Your task to perform on an android device: turn off translation in the chrome app Image 0: 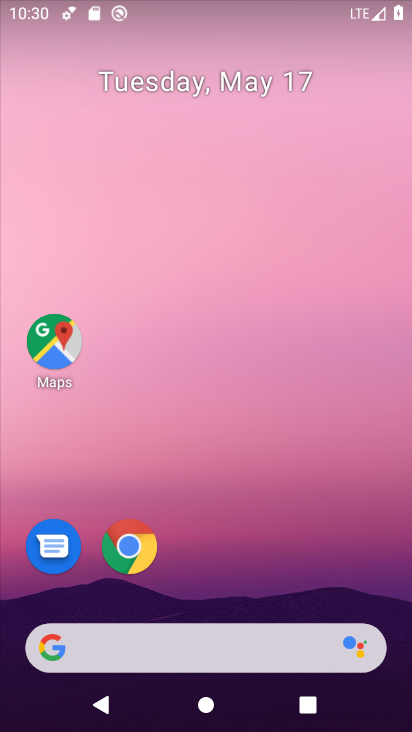
Step 0: drag from (208, 592) to (282, 133)
Your task to perform on an android device: turn off translation in the chrome app Image 1: 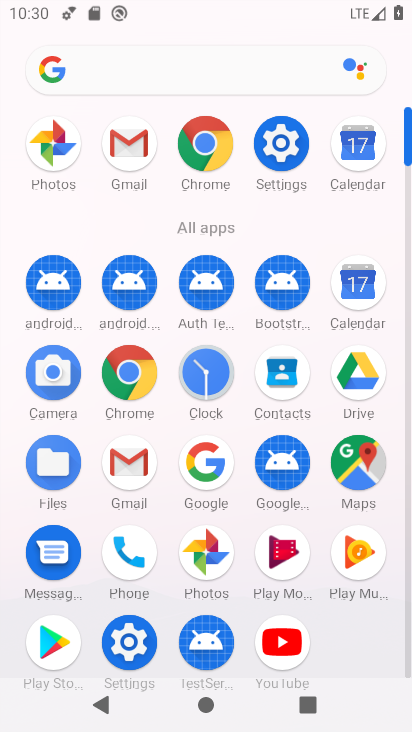
Step 1: click (126, 362)
Your task to perform on an android device: turn off translation in the chrome app Image 2: 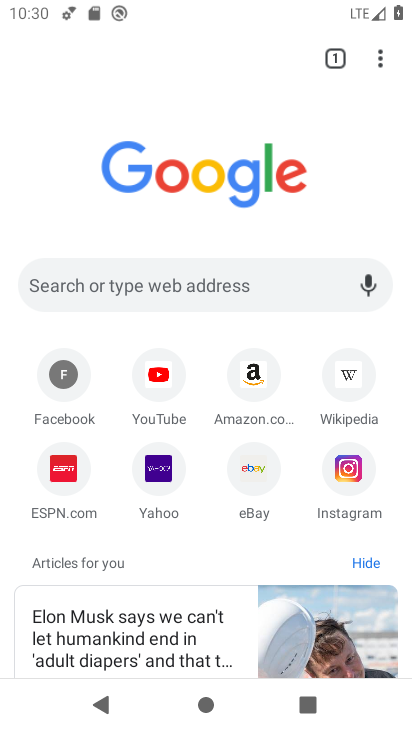
Step 2: click (382, 56)
Your task to perform on an android device: turn off translation in the chrome app Image 3: 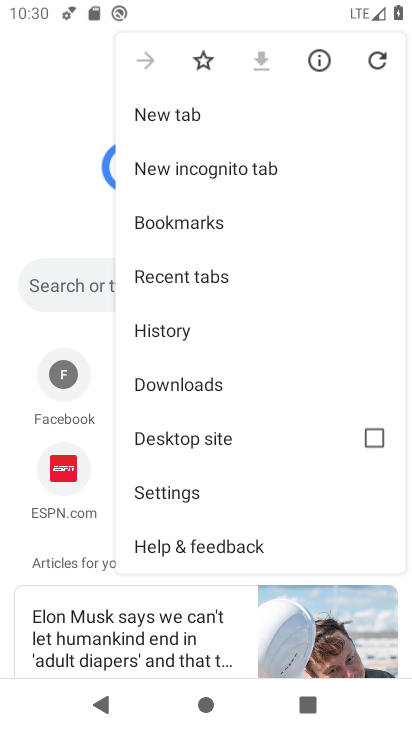
Step 3: click (177, 488)
Your task to perform on an android device: turn off translation in the chrome app Image 4: 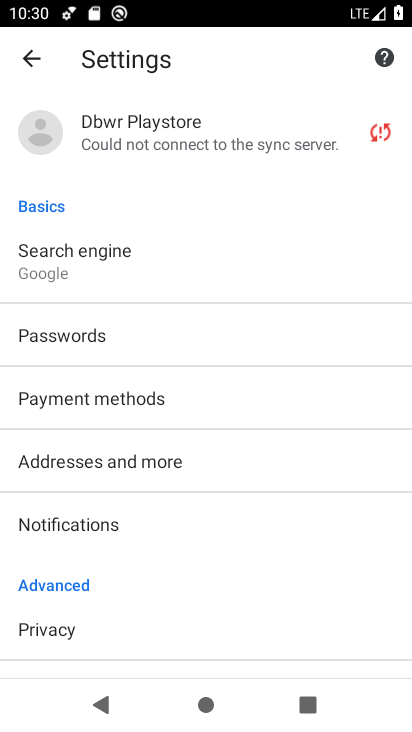
Step 4: drag from (115, 521) to (145, 320)
Your task to perform on an android device: turn off translation in the chrome app Image 5: 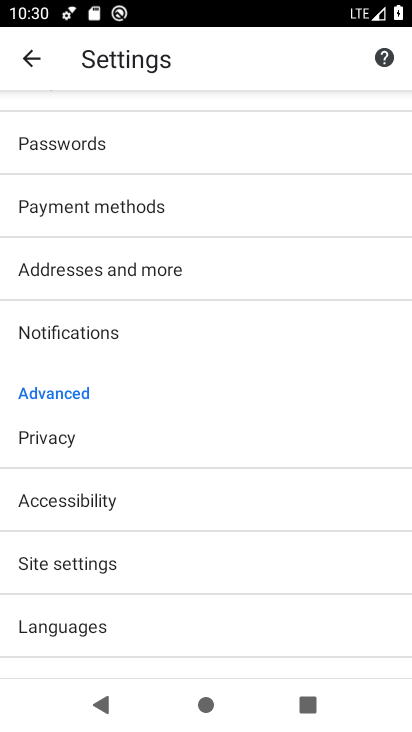
Step 5: click (78, 616)
Your task to perform on an android device: turn off translation in the chrome app Image 6: 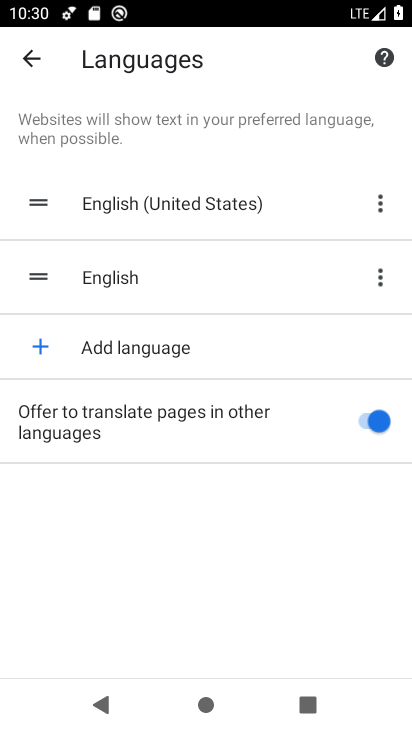
Step 6: click (353, 421)
Your task to perform on an android device: turn off translation in the chrome app Image 7: 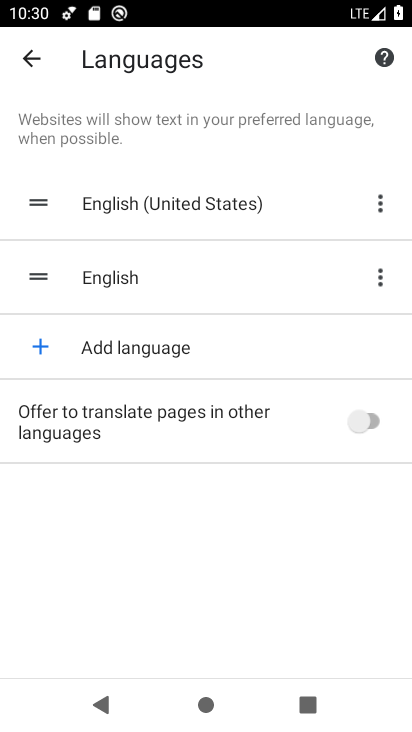
Step 7: task complete